Your task to perform on an android device: Go to sound settings Image 0: 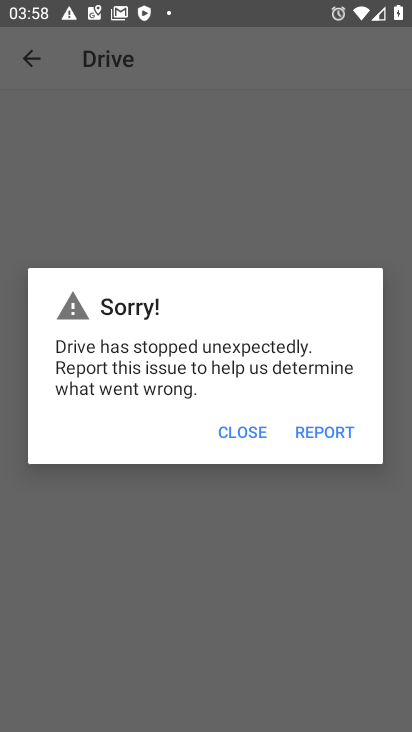
Step 0: click (221, 674)
Your task to perform on an android device: Go to sound settings Image 1: 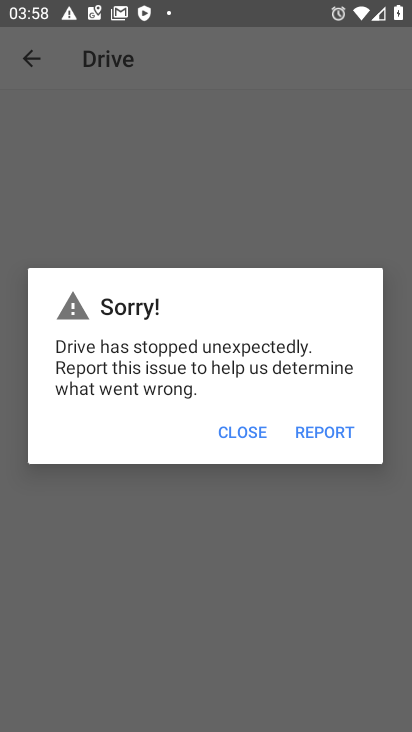
Step 1: press home button
Your task to perform on an android device: Go to sound settings Image 2: 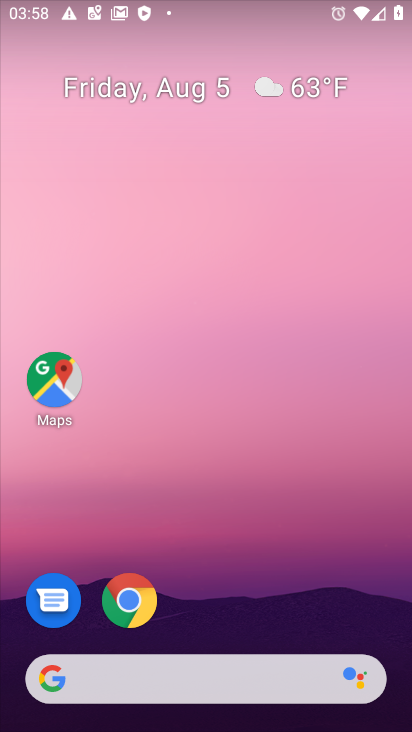
Step 2: drag from (196, 685) to (261, 156)
Your task to perform on an android device: Go to sound settings Image 3: 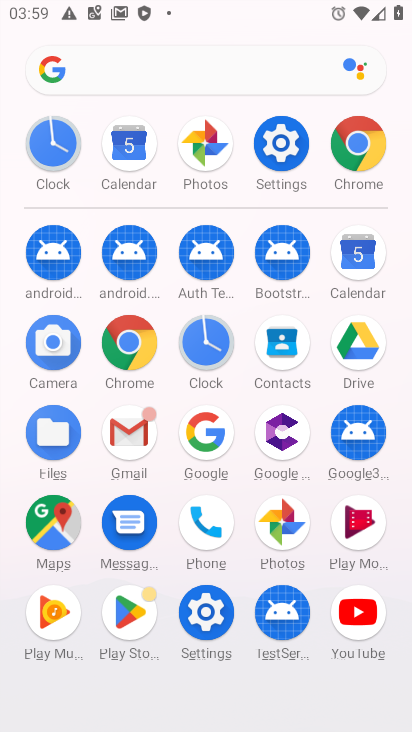
Step 3: click (280, 143)
Your task to perform on an android device: Go to sound settings Image 4: 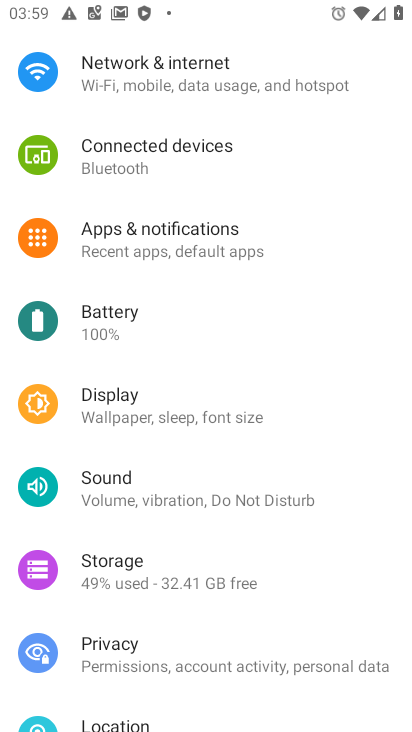
Step 4: click (133, 504)
Your task to perform on an android device: Go to sound settings Image 5: 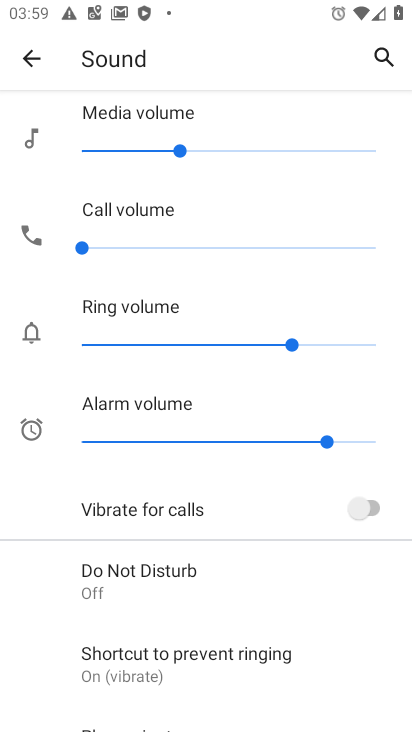
Step 5: task complete